Your task to perform on an android device: Clear the cart on target. Search for asus zenbook on target, select the first entry, and add it to the cart. Image 0: 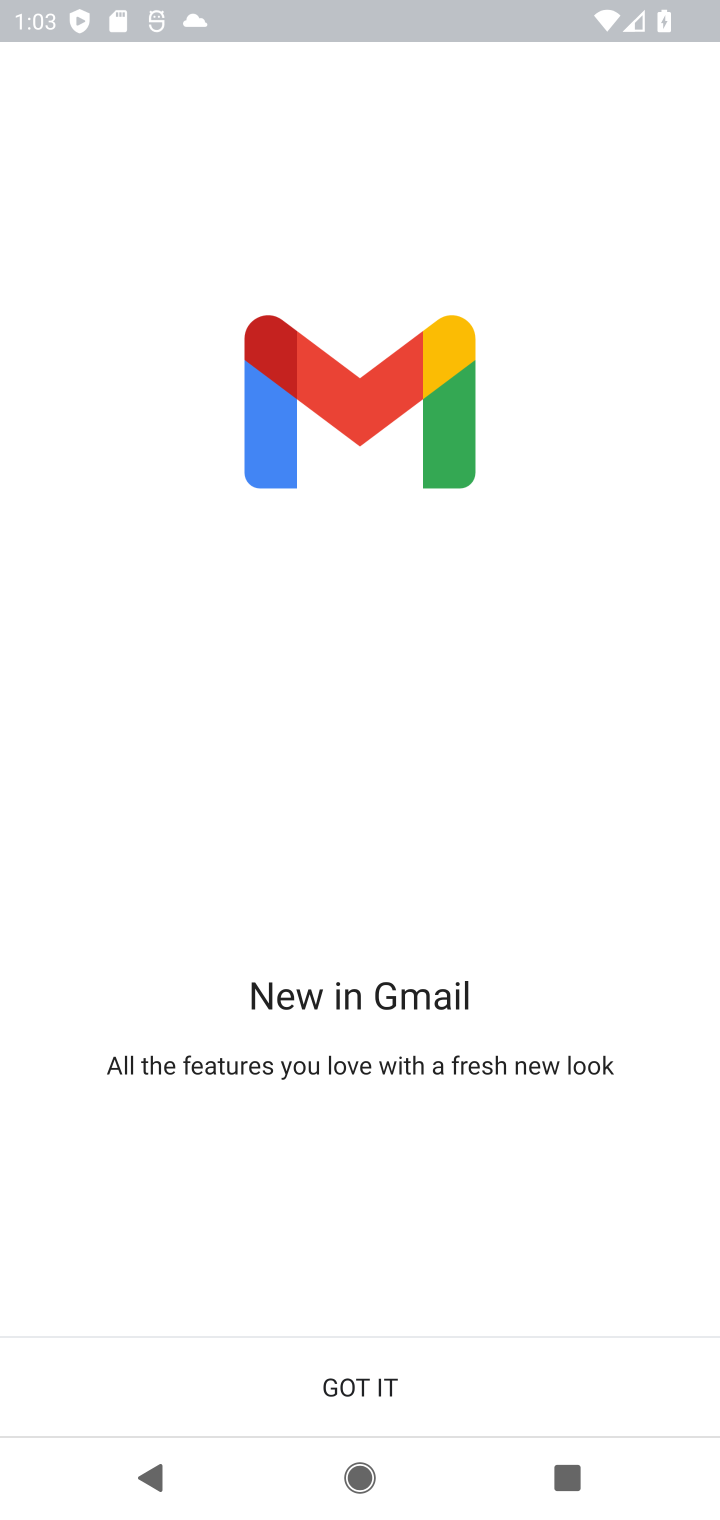
Step 0: task complete